Your task to perform on an android device: toggle notifications settings in the gmail app Image 0: 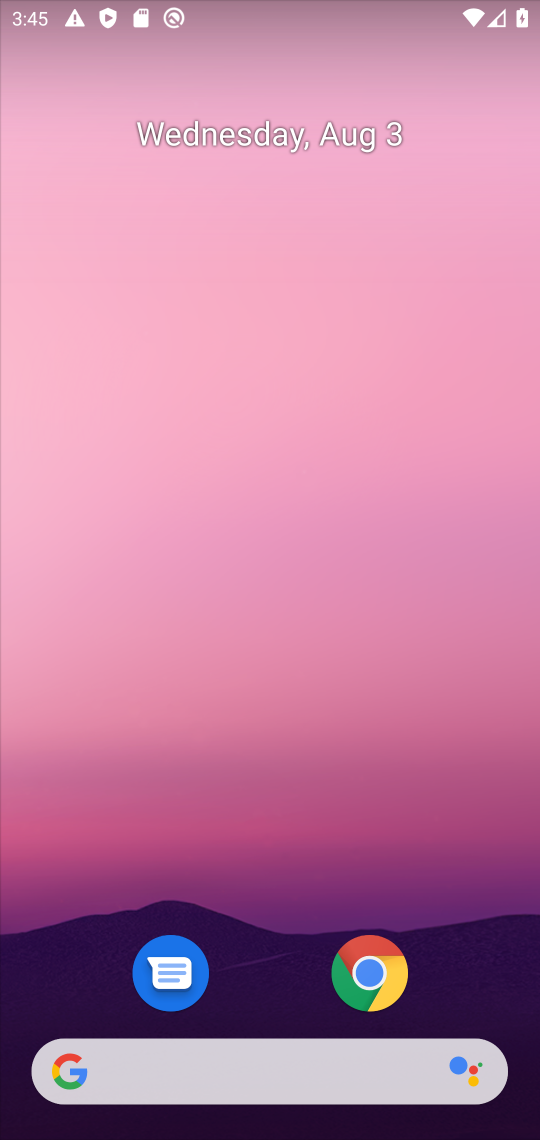
Step 0: drag from (280, 807) to (259, 1)
Your task to perform on an android device: toggle notifications settings in the gmail app Image 1: 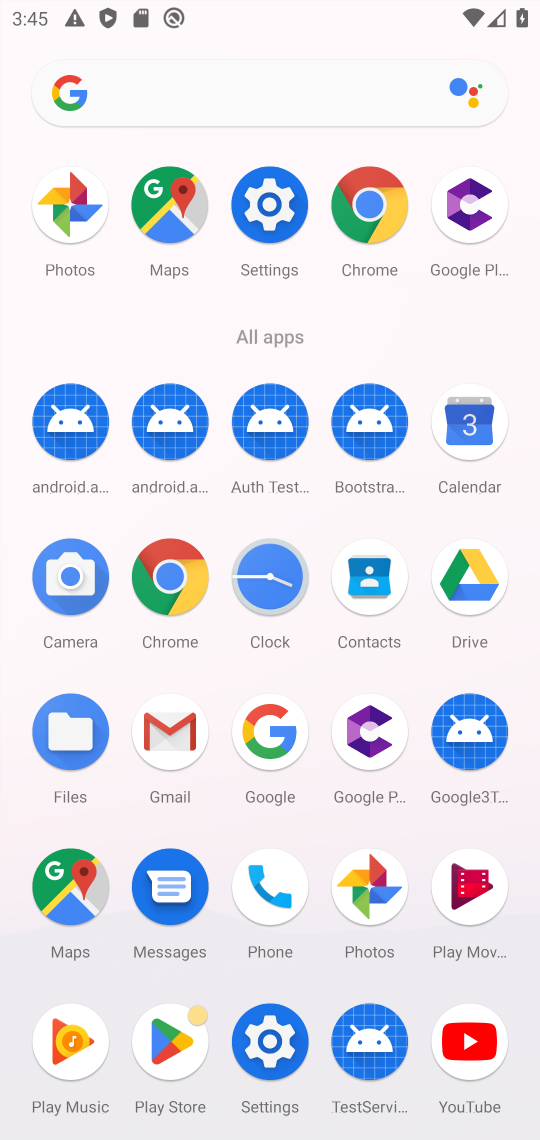
Step 1: click (161, 726)
Your task to perform on an android device: toggle notifications settings in the gmail app Image 2: 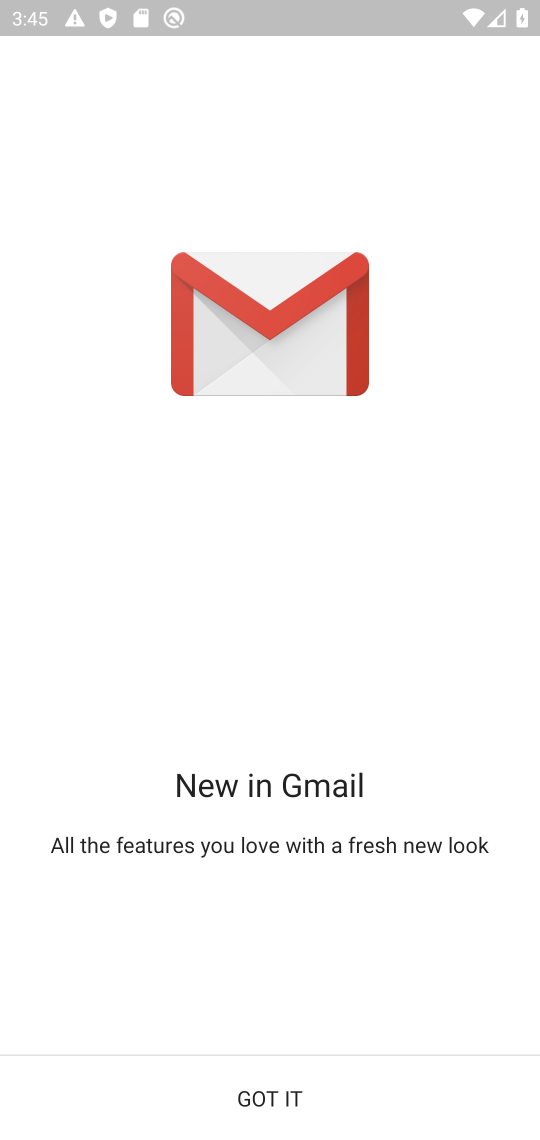
Step 2: click (301, 1101)
Your task to perform on an android device: toggle notifications settings in the gmail app Image 3: 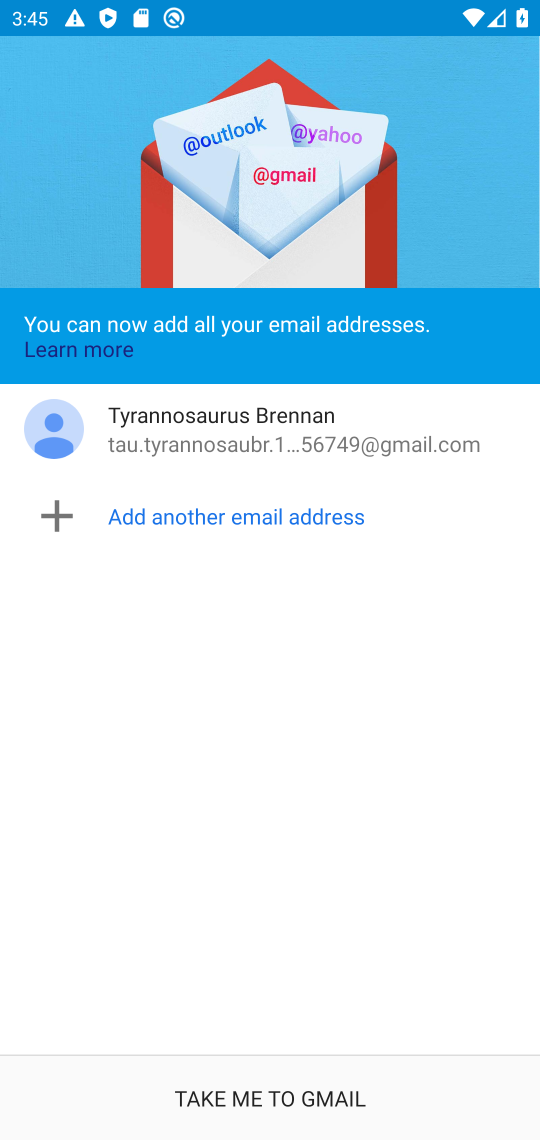
Step 3: click (301, 1101)
Your task to perform on an android device: toggle notifications settings in the gmail app Image 4: 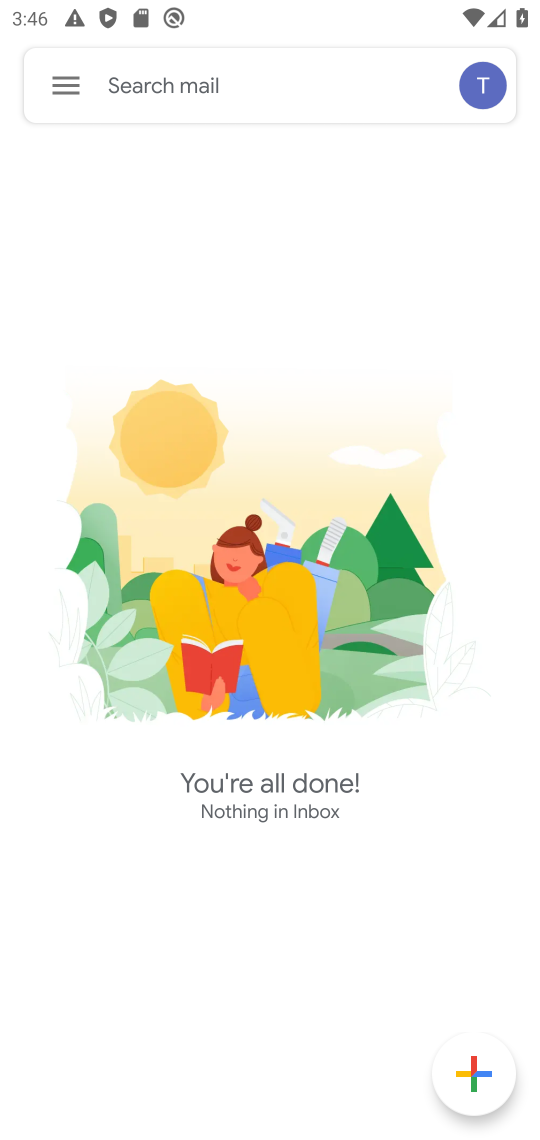
Step 4: click (61, 80)
Your task to perform on an android device: toggle notifications settings in the gmail app Image 5: 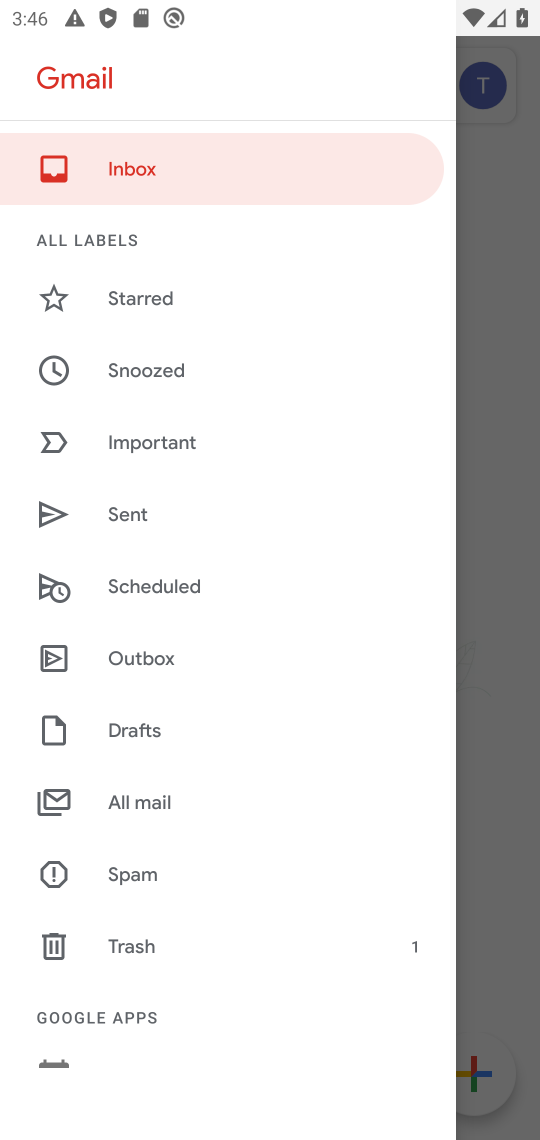
Step 5: drag from (251, 834) to (266, 442)
Your task to perform on an android device: toggle notifications settings in the gmail app Image 6: 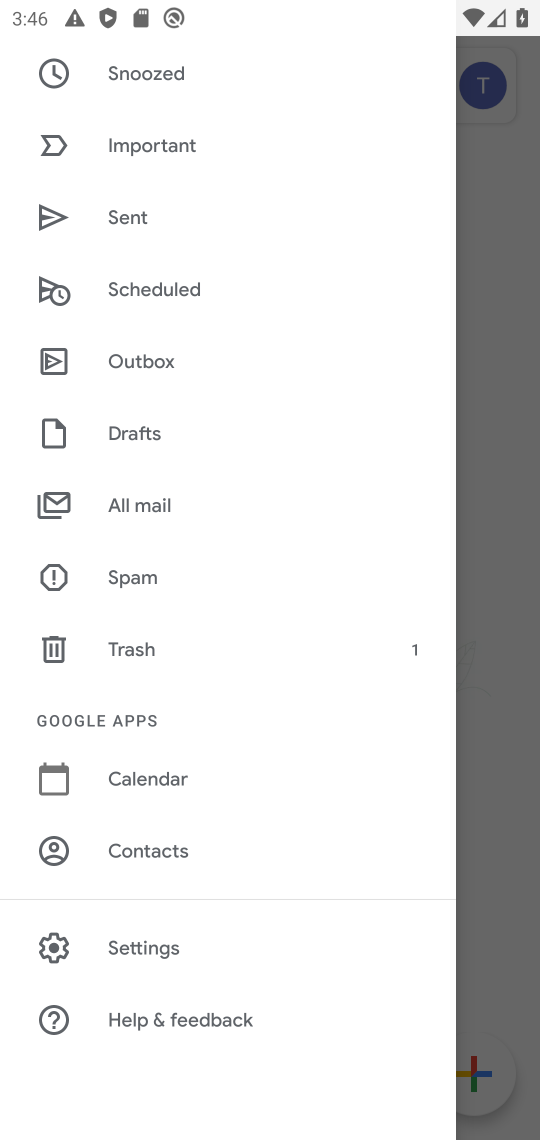
Step 6: click (146, 947)
Your task to perform on an android device: toggle notifications settings in the gmail app Image 7: 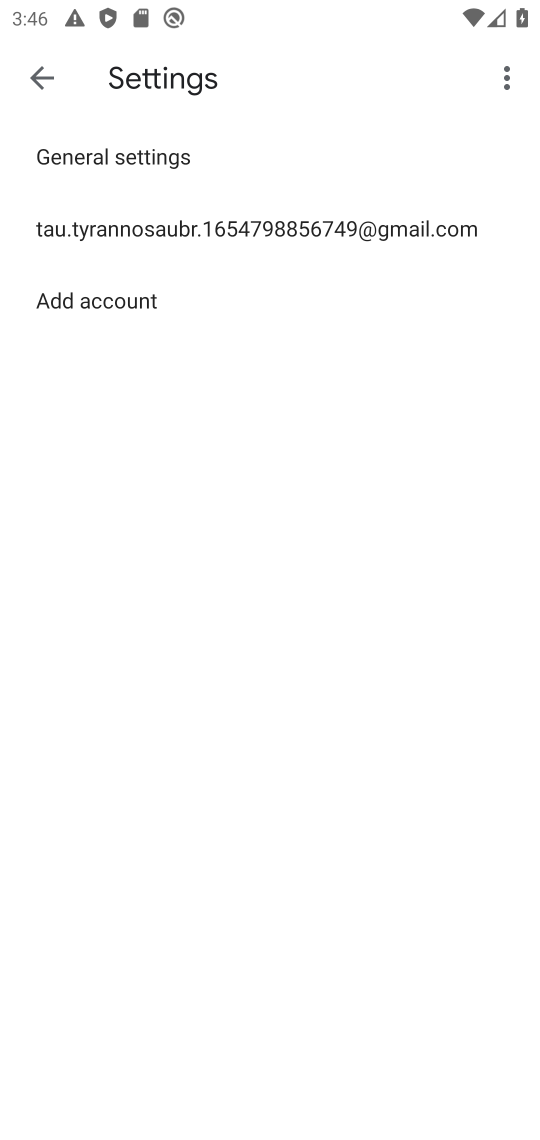
Step 7: click (345, 216)
Your task to perform on an android device: toggle notifications settings in the gmail app Image 8: 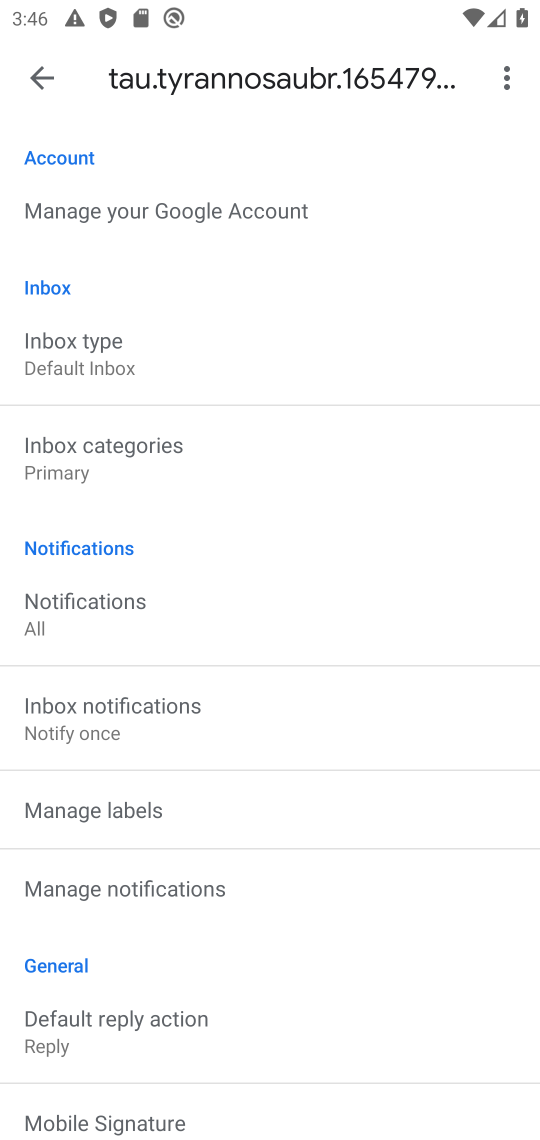
Step 8: click (162, 883)
Your task to perform on an android device: toggle notifications settings in the gmail app Image 9: 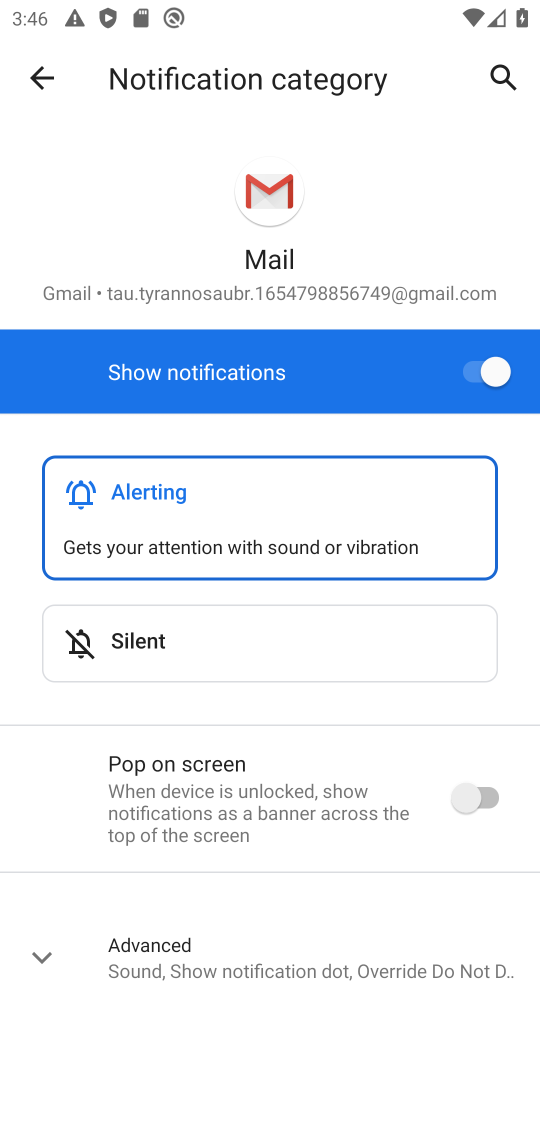
Step 9: click (492, 369)
Your task to perform on an android device: toggle notifications settings in the gmail app Image 10: 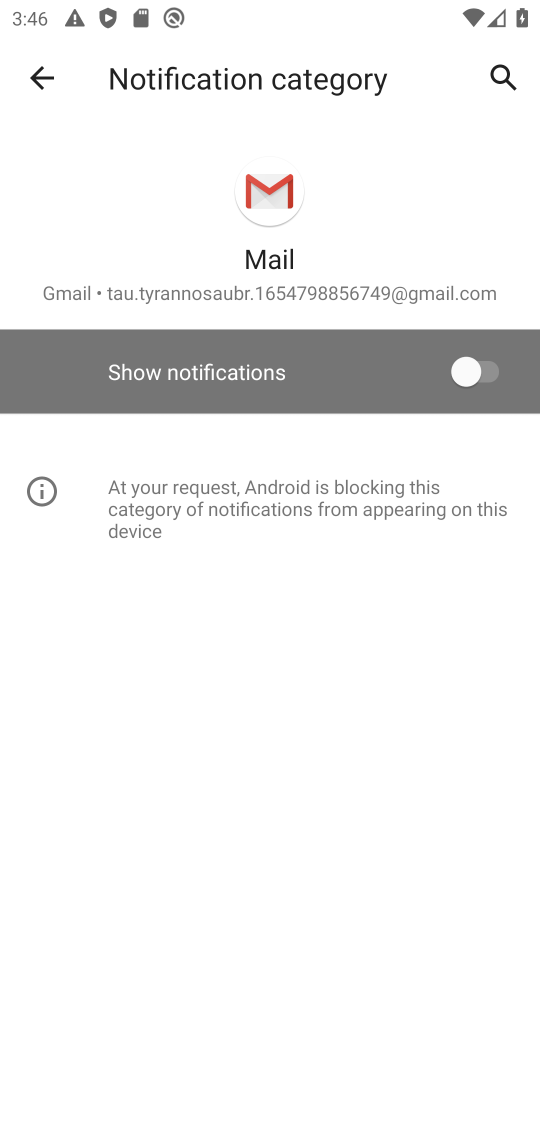
Step 10: task complete